Your task to perform on an android device: Open the calendar and show me this week's events? Image 0: 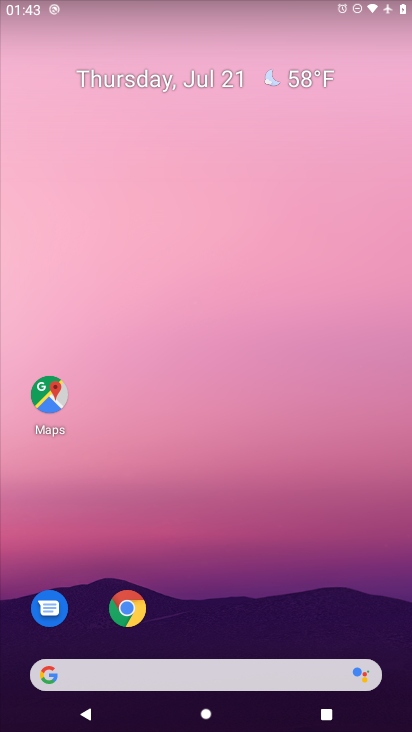
Step 0: press home button
Your task to perform on an android device: Open the calendar and show me this week's events? Image 1: 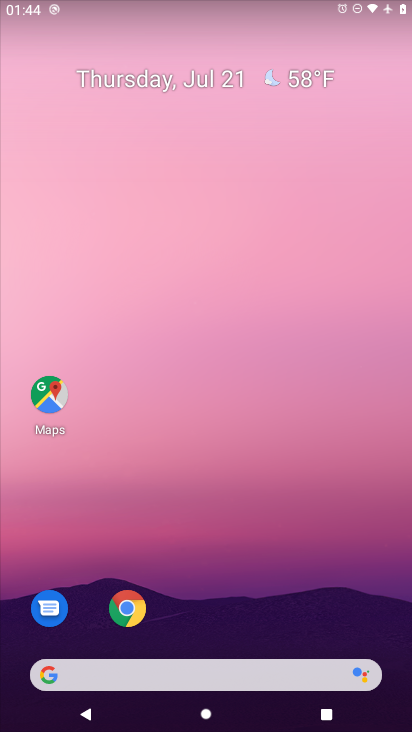
Step 1: drag from (245, 649) to (233, 13)
Your task to perform on an android device: Open the calendar and show me this week's events? Image 2: 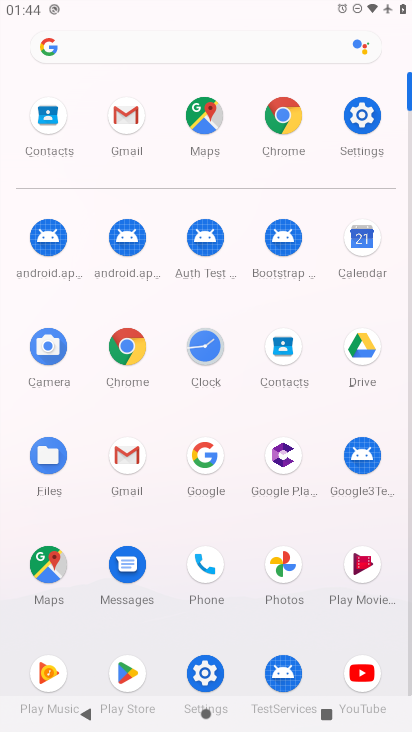
Step 2: click (357, 239)
Your task to perform on an android device: Open the calendar and show me this week's events? Image 3: 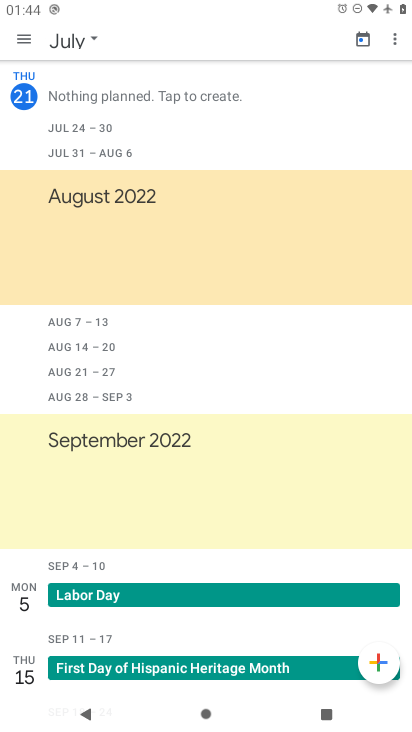
Step 3: click (23, 34)
Your task to perform on an android device: Open the calendar and show me this week's events? Image 4: 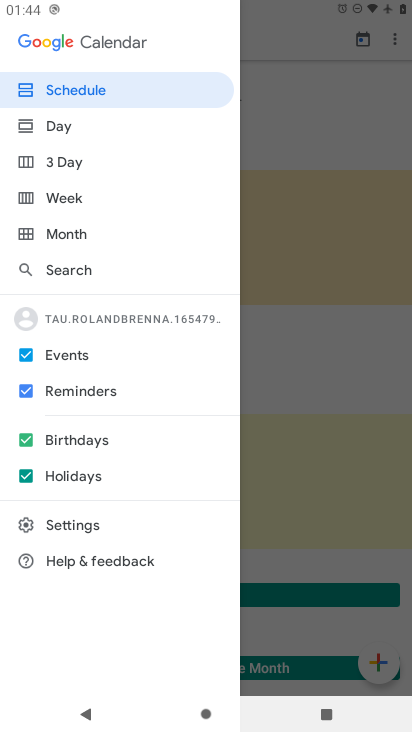
Step 4: click (64, 204)
Your task to perform on an android device: Open the calendar and show me this week's events? Image 5: 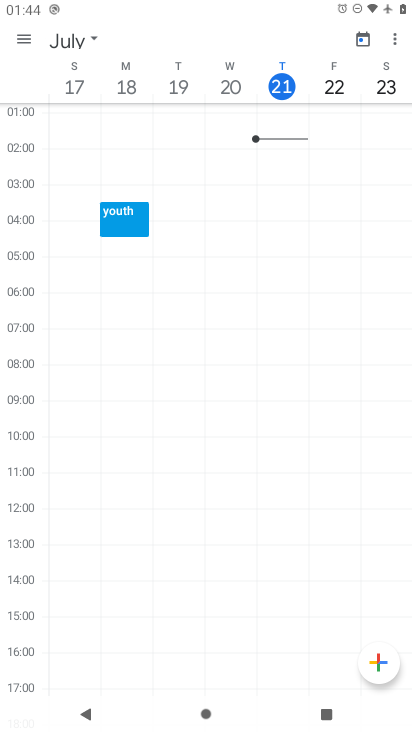
Step 5: task complete